Your task to perform on an android device: turn on data saver in the chrome app Image 0: 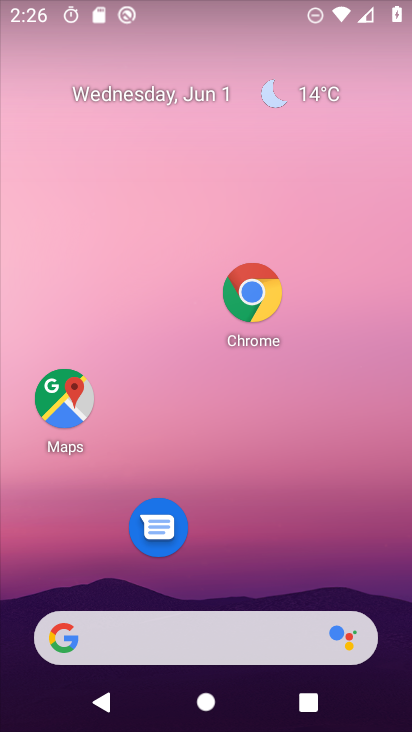
Step 0: drag from (294, 489) to (291, 265)
Your task to perform on an android device: turn on data saver in the chrome app Image 1: 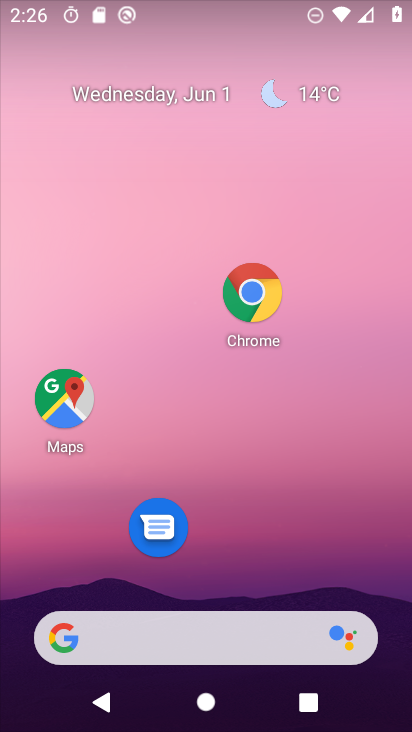
Step 1: drag from (253, 485) to (262, 223)
Your task to perform on an android device: turn on data saver in the chrome app Image 2: 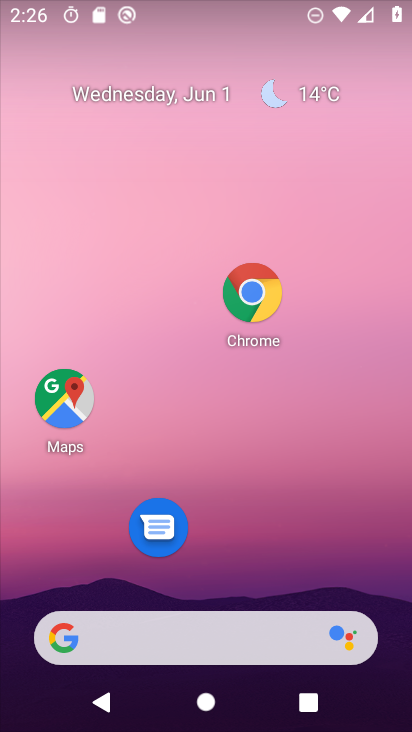
Step 2: drag from (217, 632) to (215, 370)
Your task to perform on an android device: turn on data saver in the chrome app Image 3: 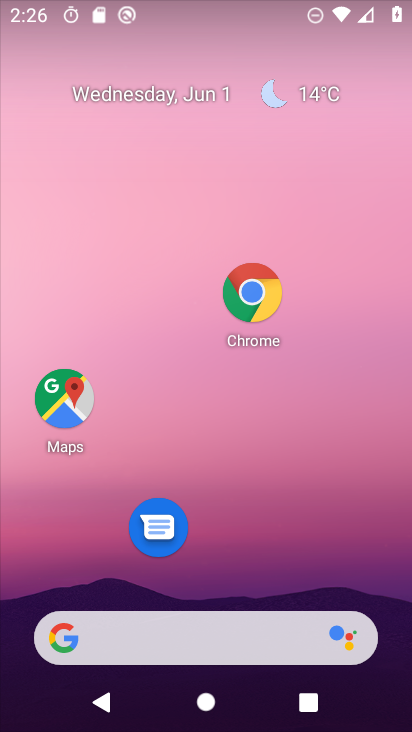
Step 3: drag from (208, 516) to (202, 187)
Your task to perform on an android device: turn on data saver in the chrome app Image 4: 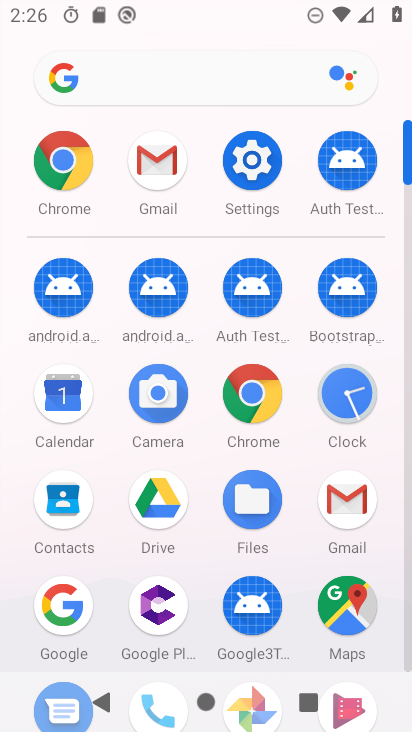
Step 4: click (76, 194)
Your task to perform on an android device: turn on data saver in the chrome app Image 5: 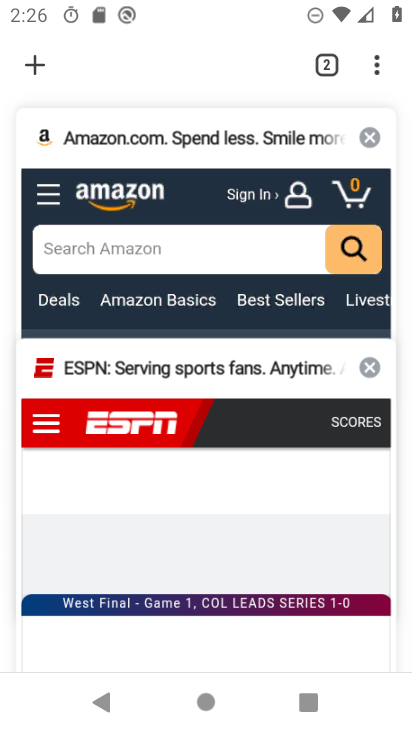
Step 5: click (254, 237)
Your task to perform on an android device: turn on data saver in the chrome app Image 6: 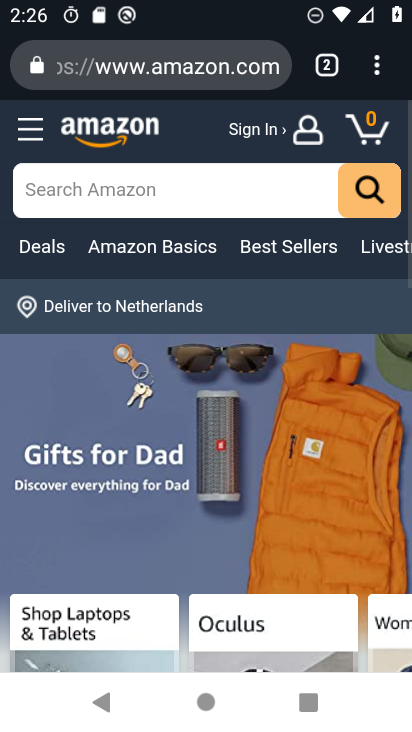
Step 6: click (390, 68)
Your task to perform on an android device: turn on data saver in the chrome app Image 7: 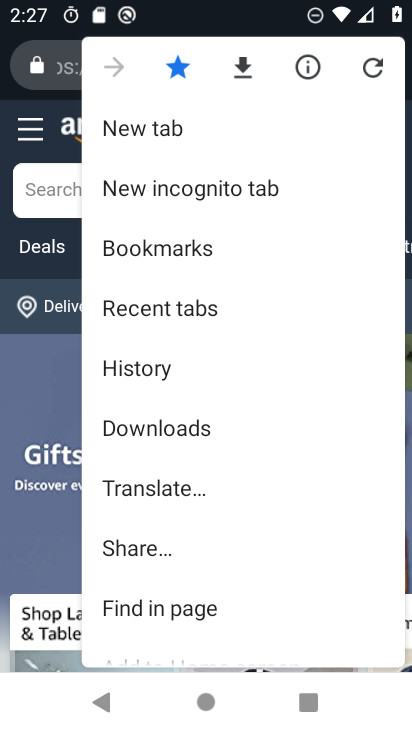
Step 7: drag from (209, 393) to (208, 280)
Your task to perform on an android device: turn on data saver in the chrome app Image 8: 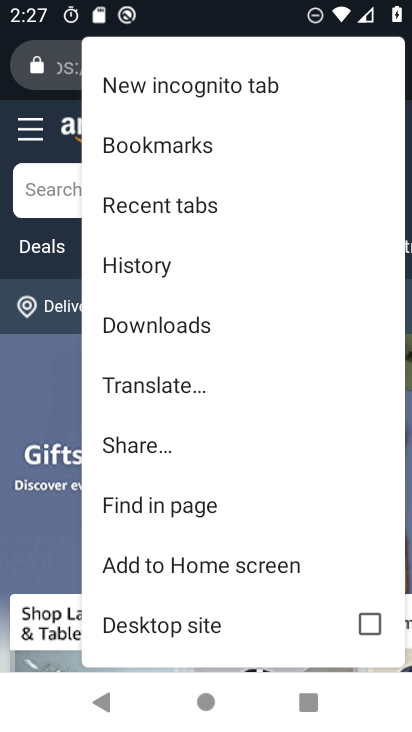
Step 8: drag from (190, 371) to (202, 285)
Your task to perform on an android device: turn on data saver in the chrome app Image 9: 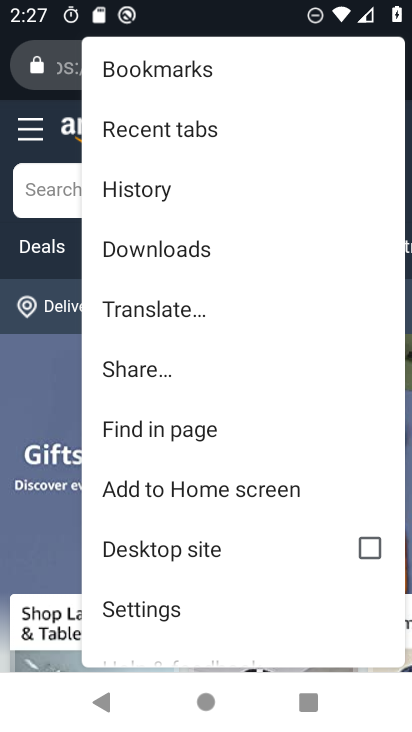
Step 9: click (196, 601)
Your task to perform on an android device: turn on data saver in the chrome app Image 10: 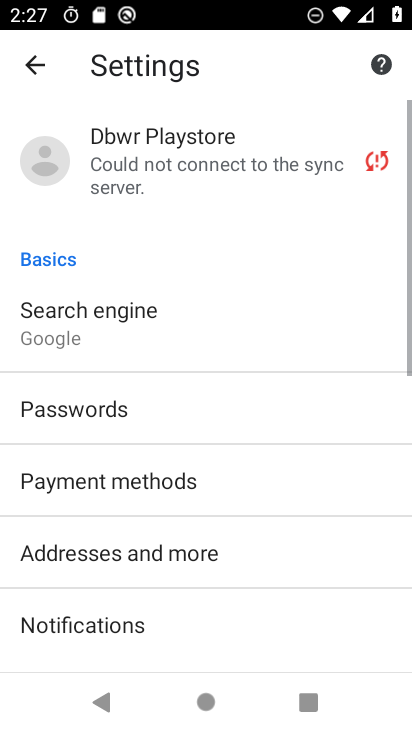
Step 10: drag from (195, 457) to (191, 207)
Your task to perform on an android device: turn on data saver in the chrome app Image 11: 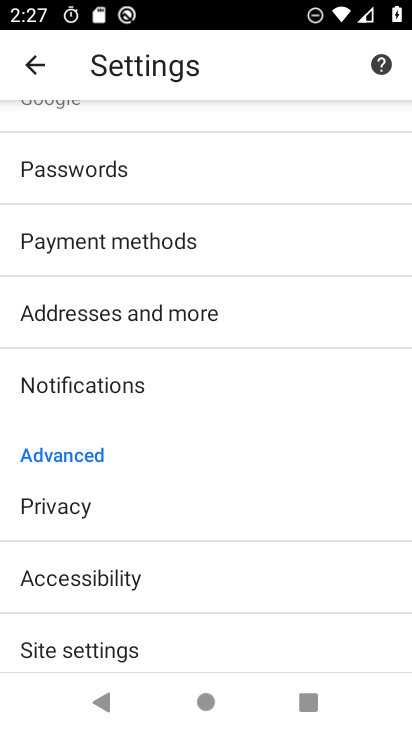
Step 11: drag from (191, 505) to (216, 235)
Your task to perform on an android device: turn on data saver in the chrome app Image 12: 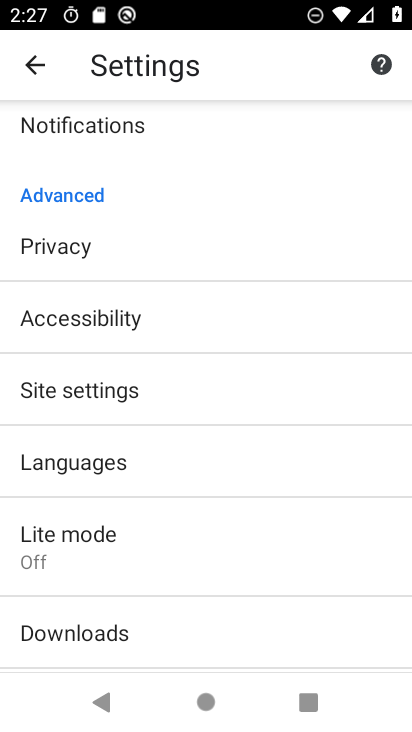
Step 12: click (106, 554)
Your task to perform on an android device: turn on data saver in the chrome app Image 13: 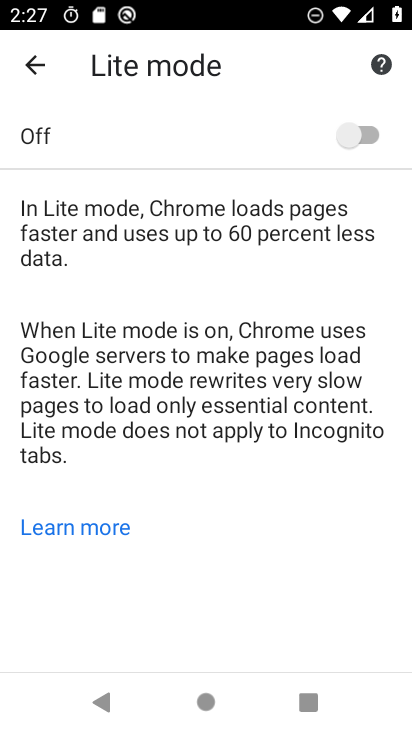
Step 13: click (370, 128)
Your task to perform on an android device: turn on data saver in the chrome app Image 14: 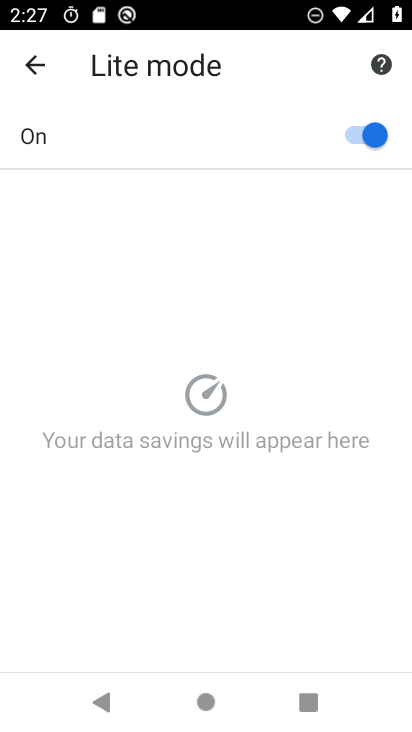
Step 14: task complete